Your task to perform on an android device: Go to network settings Image 0: 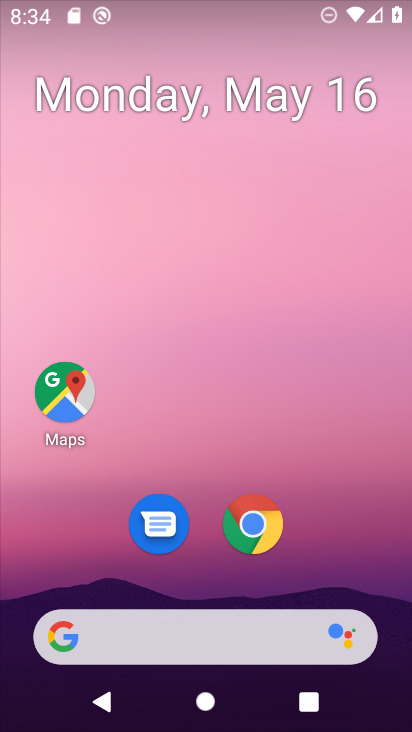
Step 0: drag from (323, 523) to (327, 68)
Your task to perform on an android device: Go to network settings Image 1: 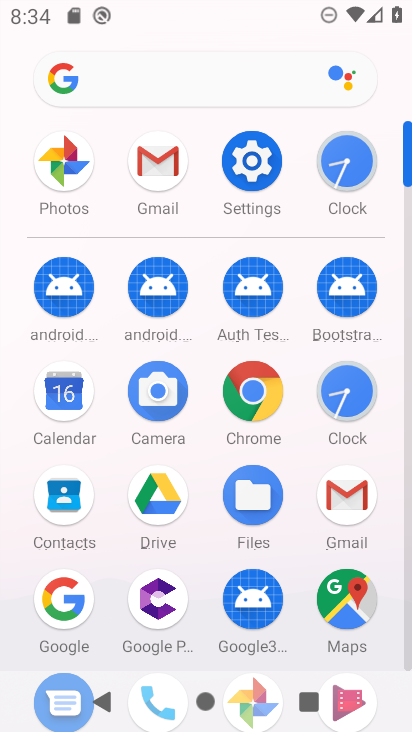
Step 1: click (253, 161)
Your task to perform on an android device: Go to network settings Image 2: 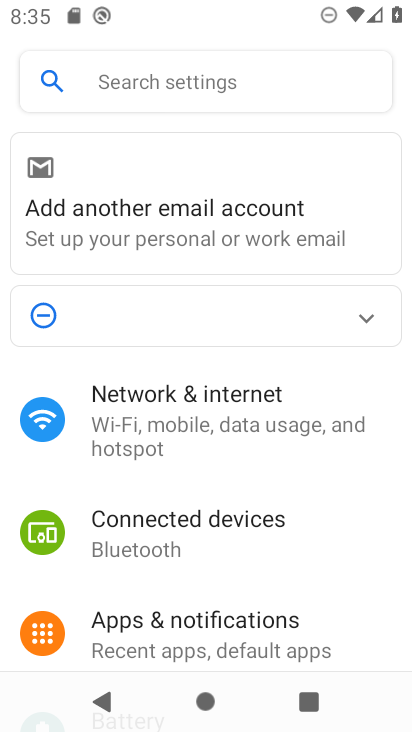
Step 2: click (158, 401)
Your task to perform on an android device: Go to network settings Image 3: 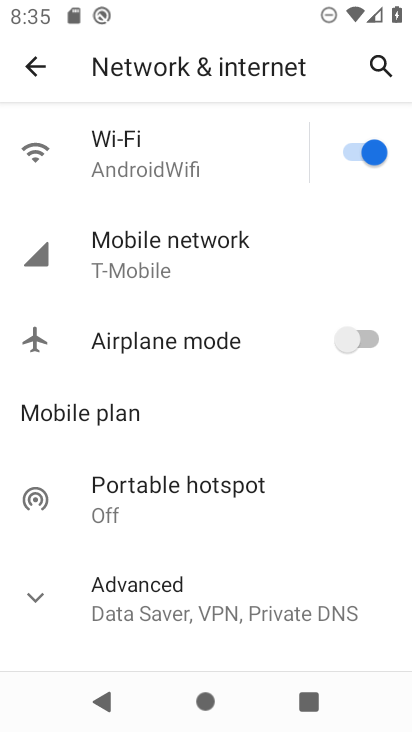
Step 3: task complete